Your task to perform on an android device: change the clock display to analog Image 0: 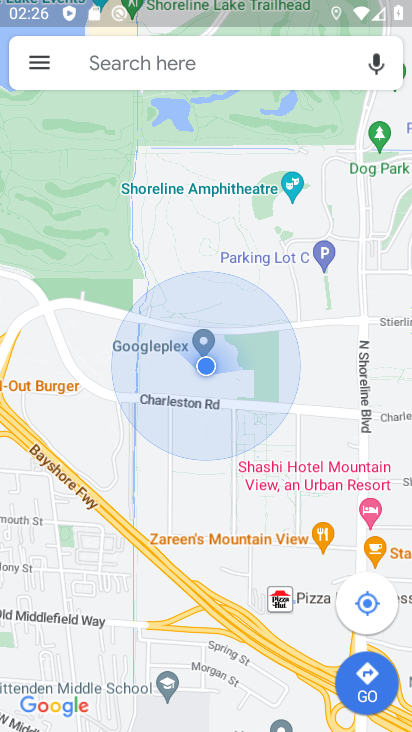
Step 0: press home button
Your task to perform on an android device: change the clock display to analog Image 1: 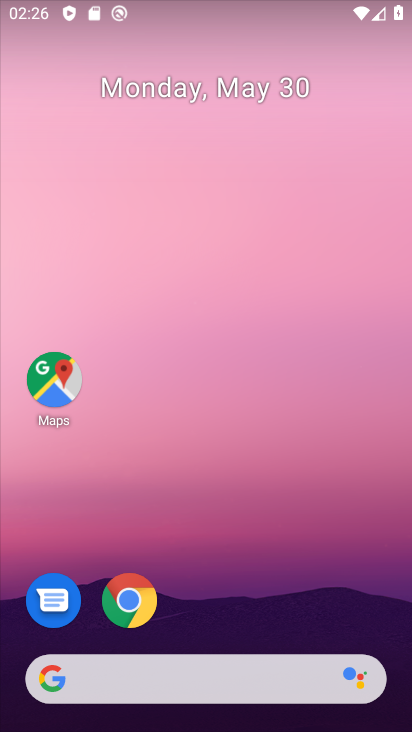
Step 1: drag from (247, 608) to (247, 86)
Your task to perform on an android device: change the clock display to analog Image 2: 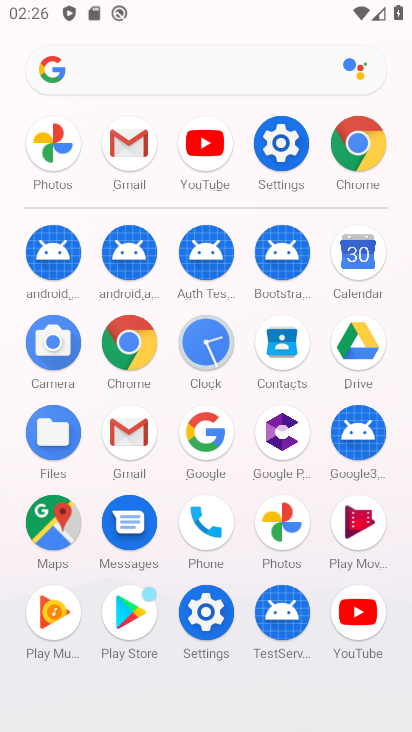
Step 2: click (212, 337)
Your task to perform on an android device: change the clock display to analog Image 3: 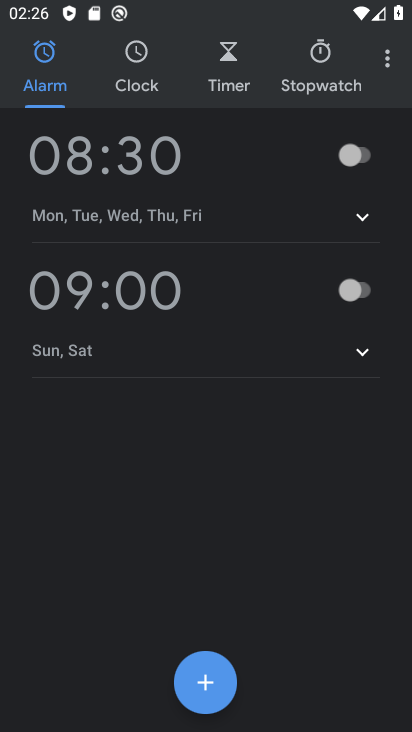
Step 3: click (391, 56)
Your task to perform on an android device: change the clock display to analog Image 4: 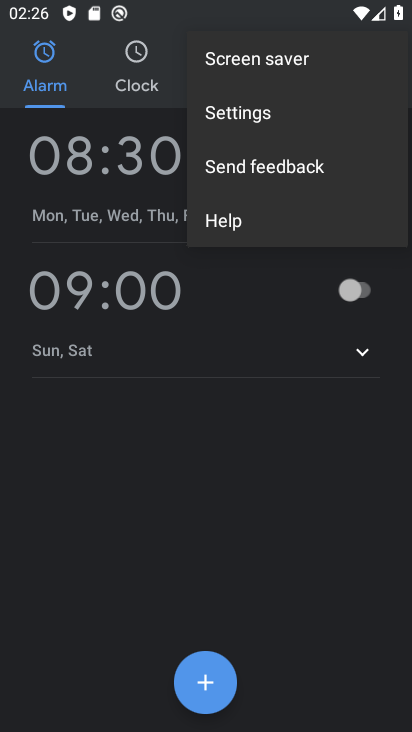
Step 4: click (271, 111)
Your task to perform on an android device: change the clock display to analog Image 5: 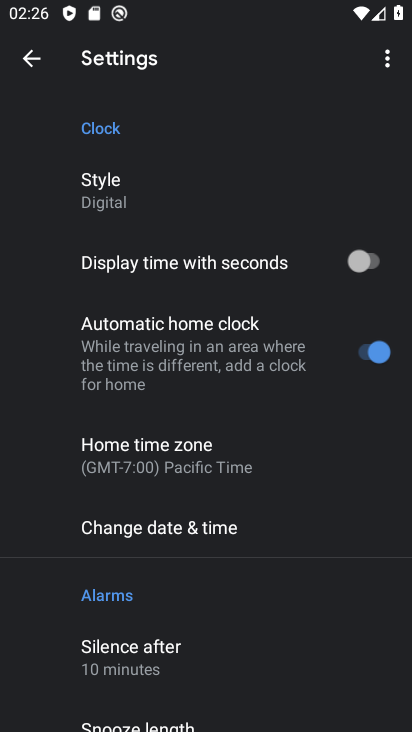
Step 5: click (140, 196)
Your task to perform on an android device: change the clock display to analog Image 6: 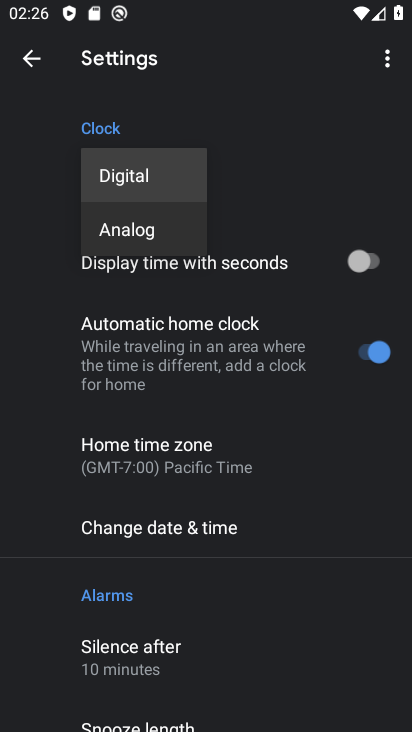
Step 6: click (141, 227)
Your task to perform on an android device: change the clock display to analog Image 7: 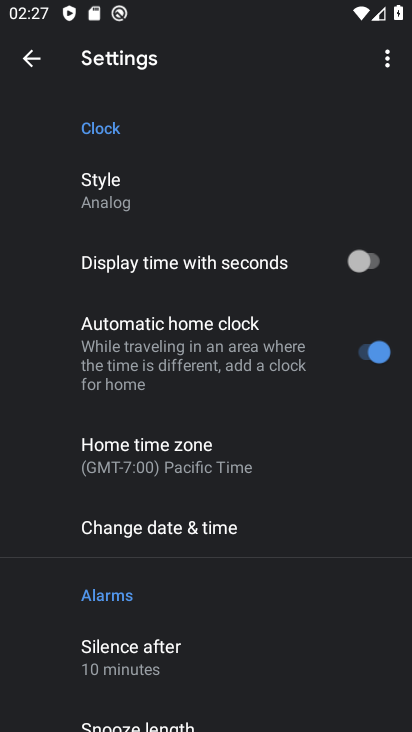
Step 7: task complete